Your task to perform on an android device: check out phone information Image 0: 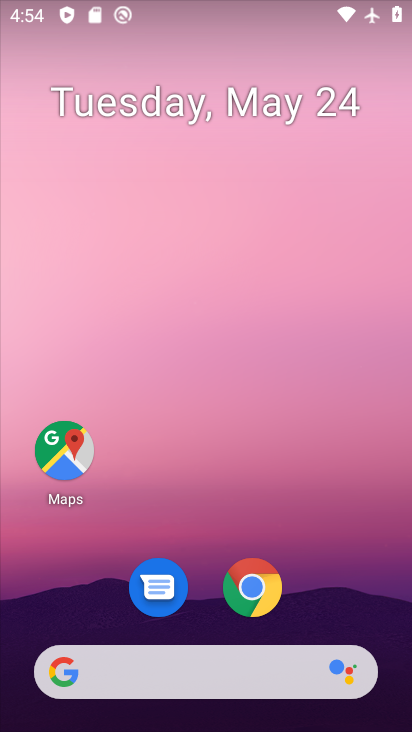
Step 0: drag from (338, 551) to (181, 16)
Your task to perform on an android device: check out phone information Image 1: 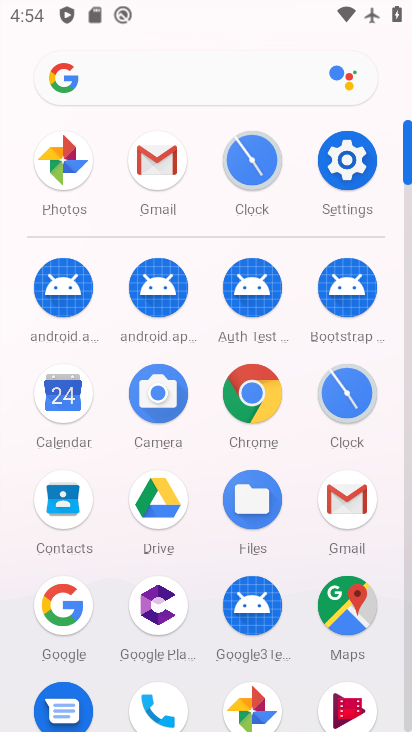
Step 1: drag from (314, 633) to (287, 49)
Your task to perform on an android device: check out phone information Image 2: 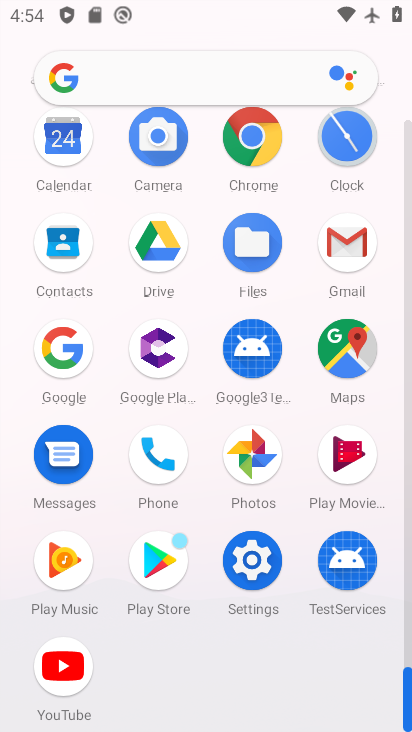
Step 2: click (251, 560)
Your task to perform on an android device: check out phone information Image 3: 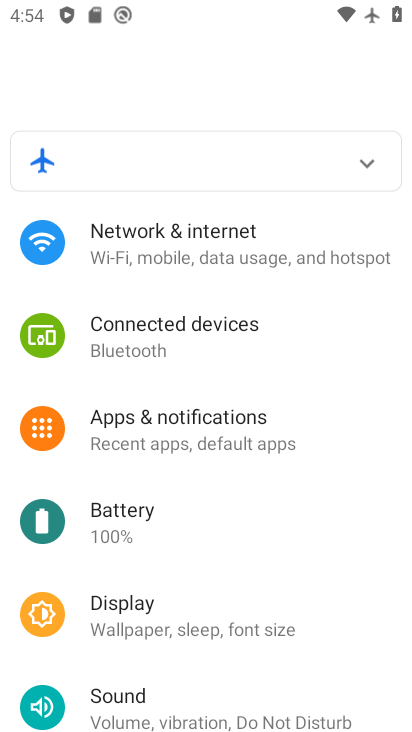
Step 3: drag from (251, 634) to (237, 41)
Your task to perform on an android device: check out phone information Image 4: 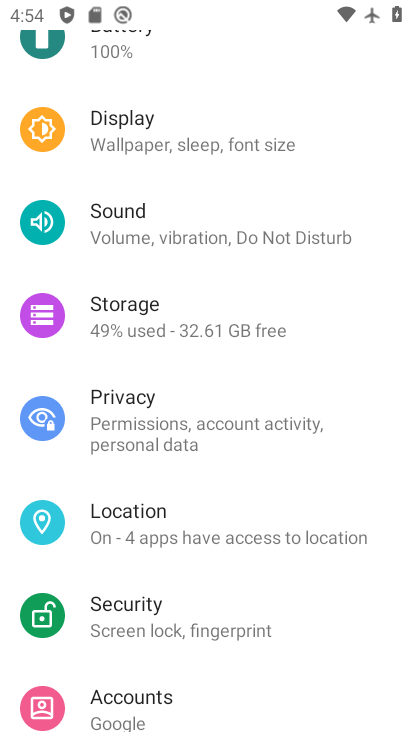
Step 4: drag from (203, 655) to (230, 150)
Your task to perform on an android device: check out phone information Image 5: 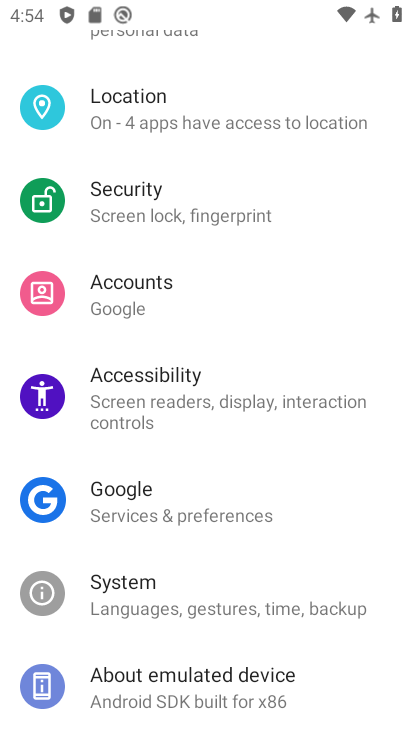
Step 5: click (204, 698)
Your task to perform on an android device: check out phone information Image 6: 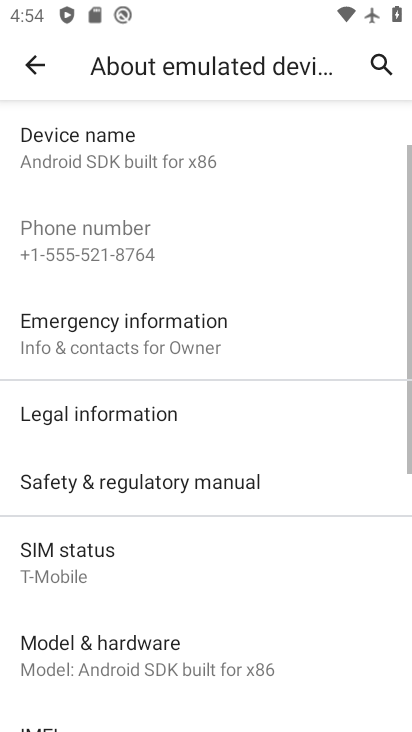
Step 6: task complete